Your task to perform on an android device: Go to location settings Image 0: 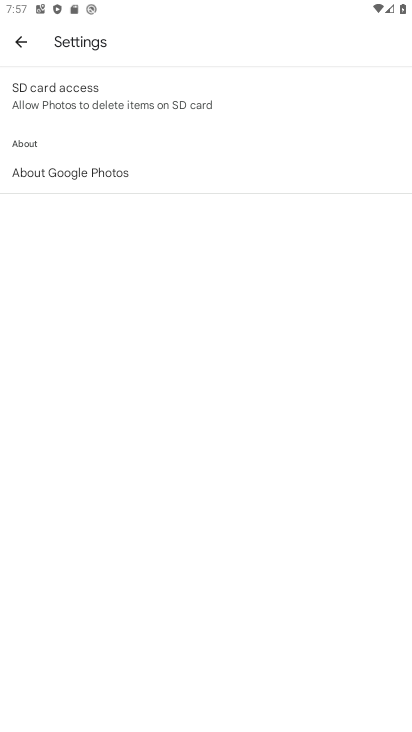
Step 0: press home button
Your task to perform on an android device: Go to location settings Image 1: 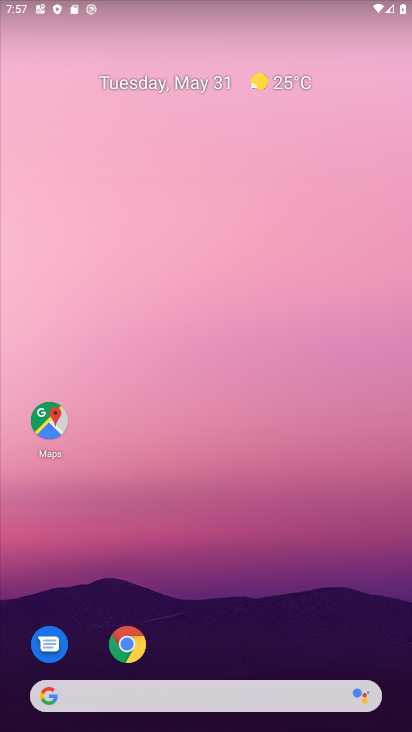
Step 1: drag from (221, 716) to (246, 354)
Your task to perform on an android device: Go to location settings Image 2: 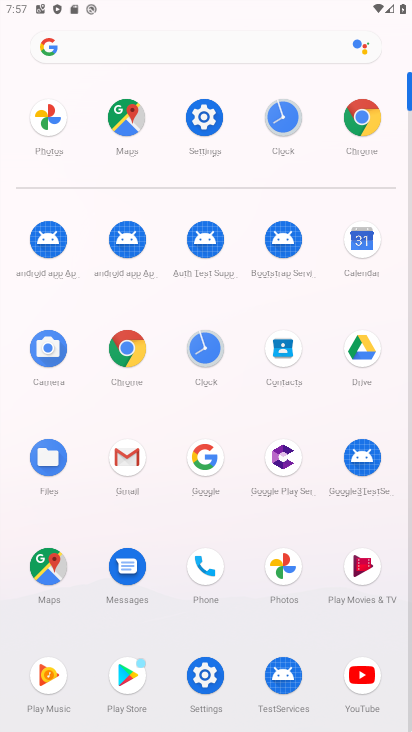
Step 2: click (207, 113)
Your task to perform on an android device: Go to location settings Image 3: 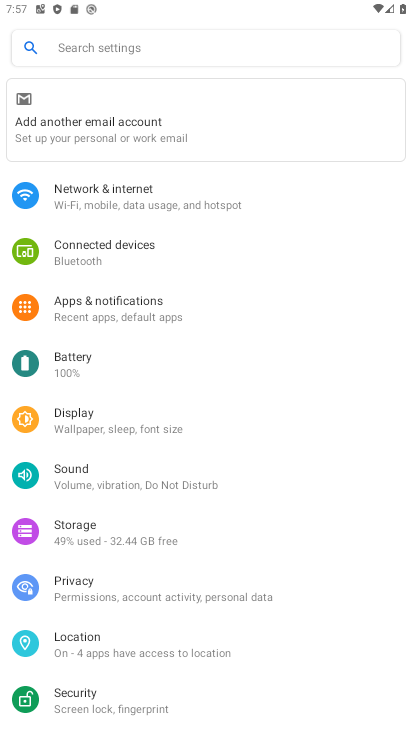
Step 3: click (172, 46)
Your task to perform on an android device: Go to location settings Image 4: 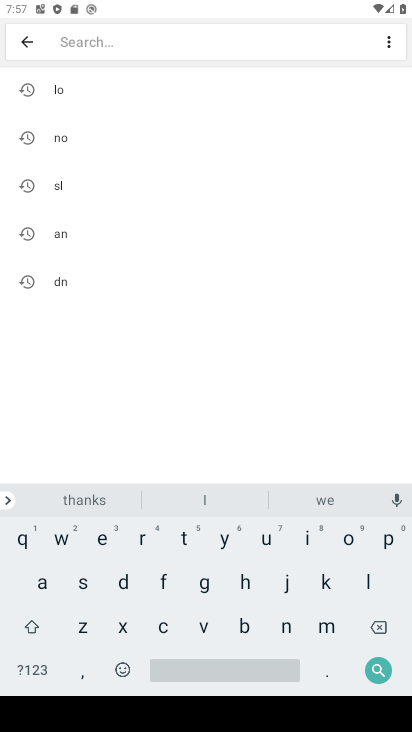
Step 4: click (372, 580)
Your task to perform on an android device: Go to location settings Image 5: 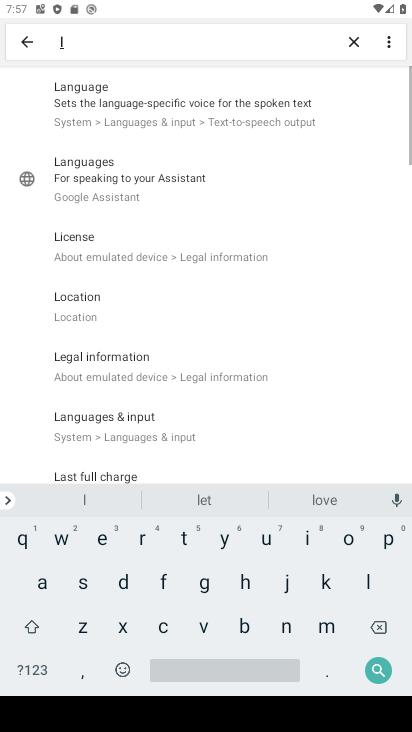
Step 5: click (346, 542)
Your task to perform on an android device: Go to location settings Image 6: 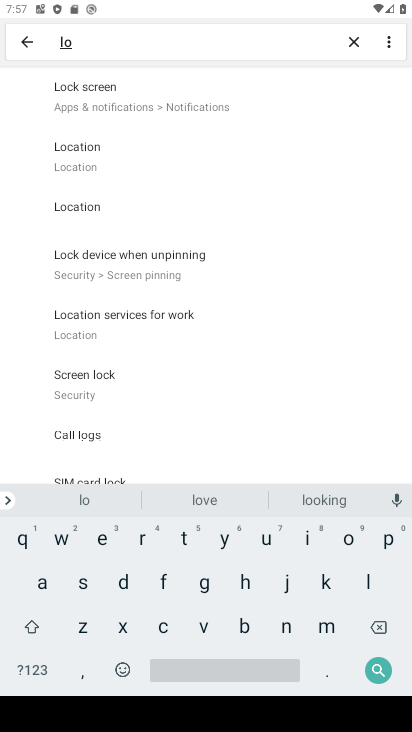
Step 6: click (98, 165)
Your task to perform on an android device: Go to location settings Image 7: 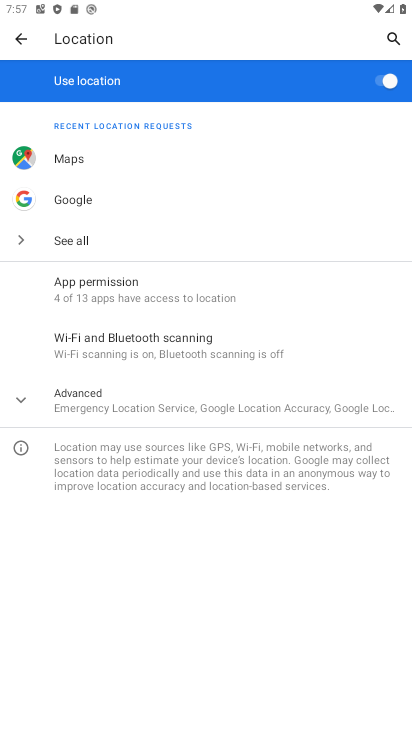
Step 7: task complete